Your task to perform on an android device: Go to settings Image 0: 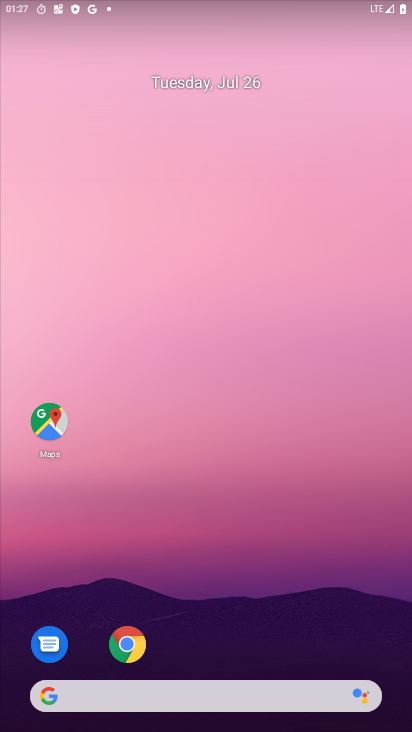
Step 0: drag from (247, 496) to (229, 3)
Your task to perform on an android device: Go to settings Image 1: 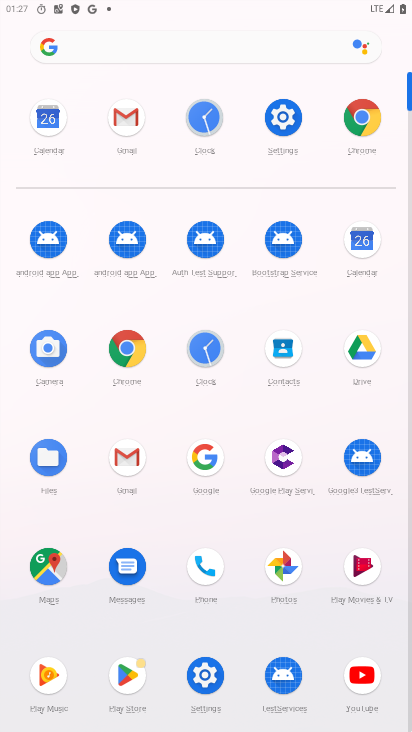
Step 1: click (282, 130)
Your task to perform on an android device: Go to settings Image 2: 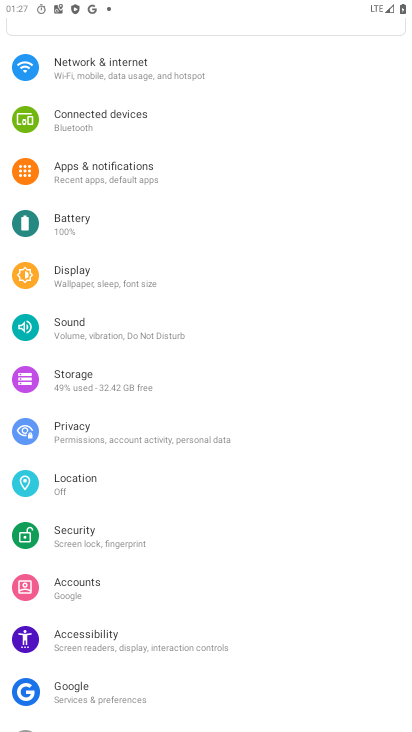
Step 2: task complete